Your task to perform on an android device: change notification settings in the gmail app Image 0: 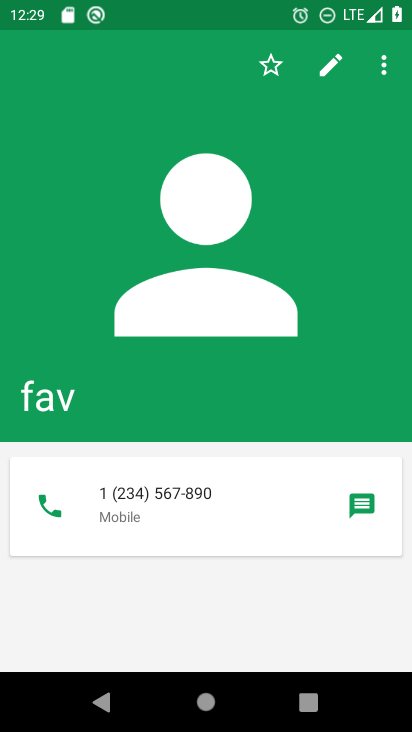
Step 0: press home button
Your task to perform on an android device: change notification settings in the gmail app Image 1: 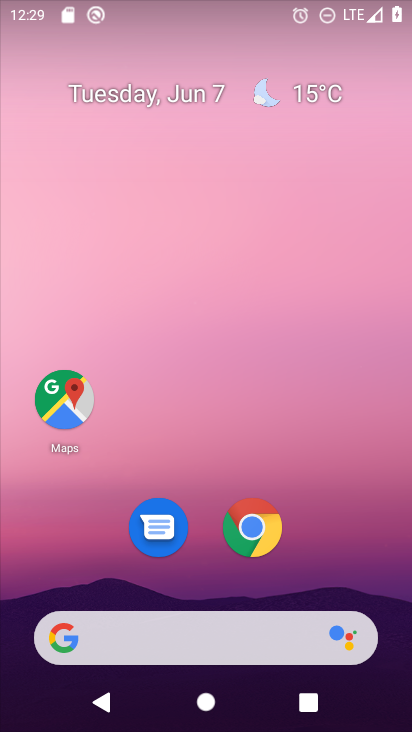
Step 1: drag from (347, 572) to (347, 95)
Your task to perform on an android device: change notification settings in the gmail app Image 2: 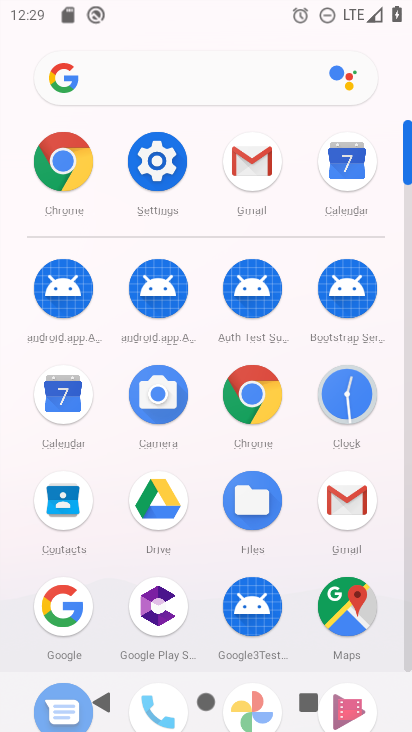
Step 2: click (353, 508)
Your task to perform on an android device: change notification settings in the gmail app Image 3: 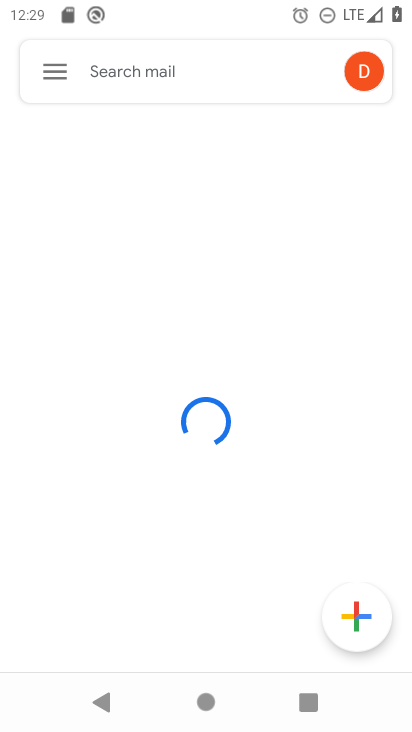
Step 3: click (53, 68)
Your task to perform on an android device: change notification settings in the gmail app Image 4: 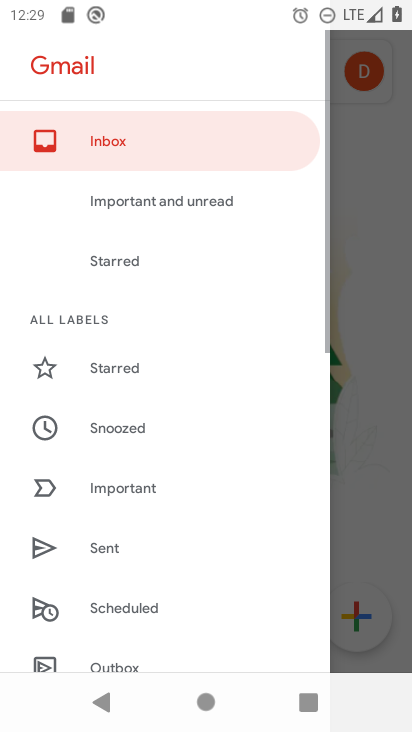
Step 4: drag from (224, 443) to (225, 289)
Your task to perform on an android device: change notification settings in the gmail app Image 5: 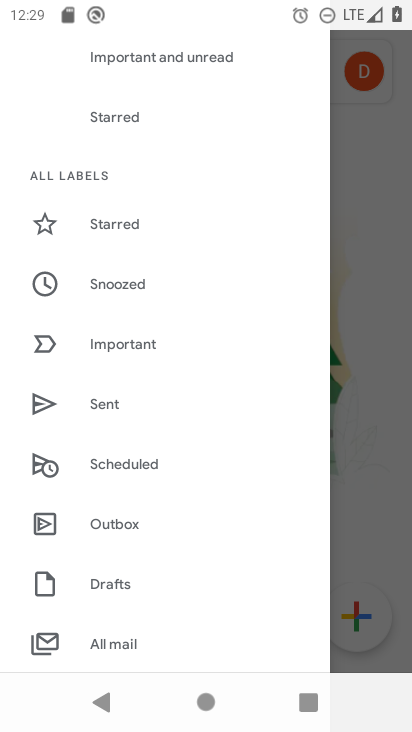
Step 5: drag from (220, 485) to (220, 334)
Your task to perform on an android device: change notification settings in the gmail app Image 6: 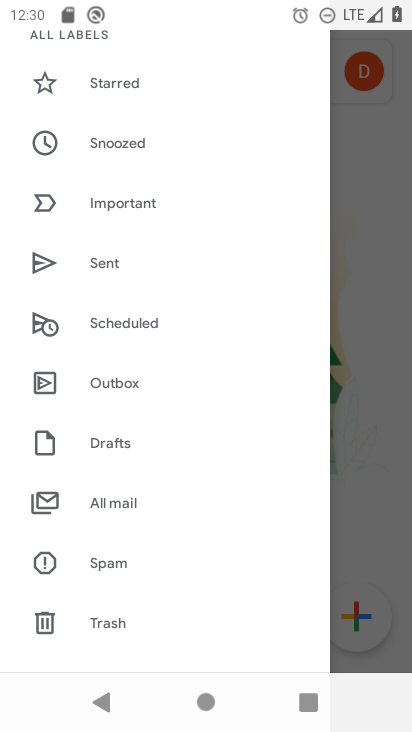
Step 6: drag from (227, 506) to (236, 370)
Your task to perform on an android device: change notification settings in the gmail app Image 7: 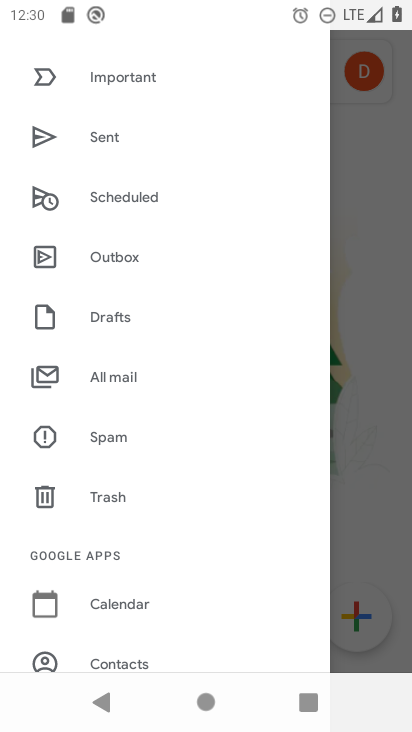
Step 7: drag from (239, 528) to (239, 361)
Your task to perform on an android device: change notification settings in the gmail app Image 8: 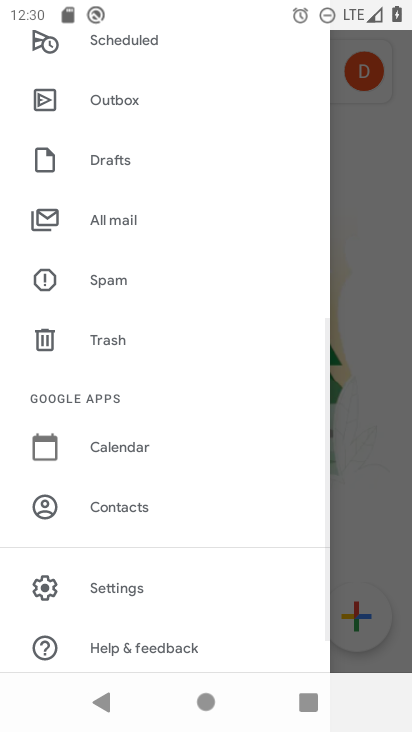
Step 8: drag from (236, 532) to (236, 357)
Your task to perform on an android device: change notification settings in the gmail app Image 9: 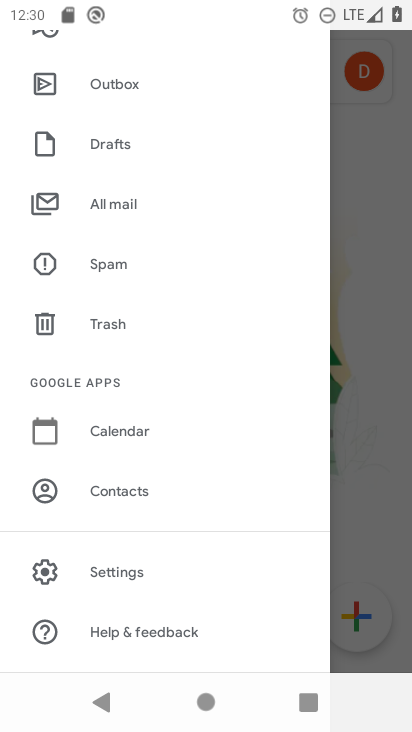
Step 9: click (153, 572)
Your task to perform on an android device: change notification settings in the gmail app Image 10: 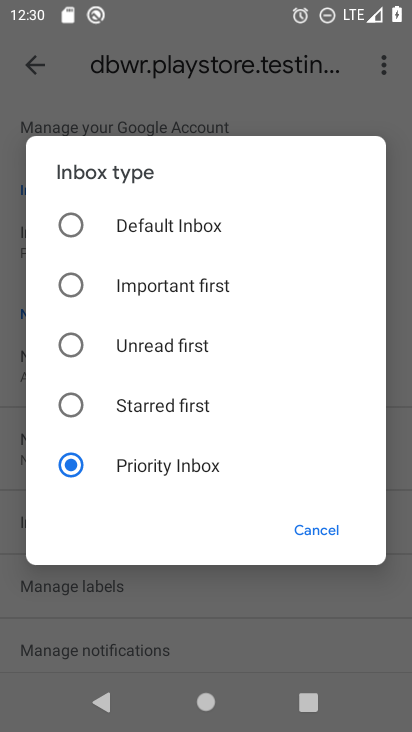
Step 10: click (297, 536)
Your task to perform on an android device: change notification settings in the gmail app Image 11: 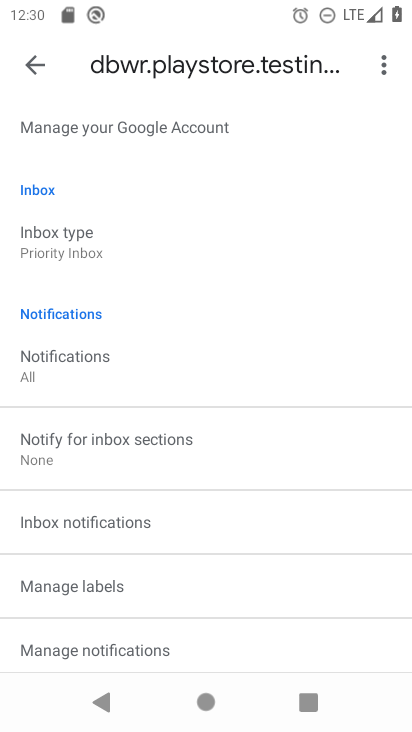
Step 11: drag from (273, 501) to (262, 334)
Your task to perform on an android device: change notification settings in the gmail app Image 12: 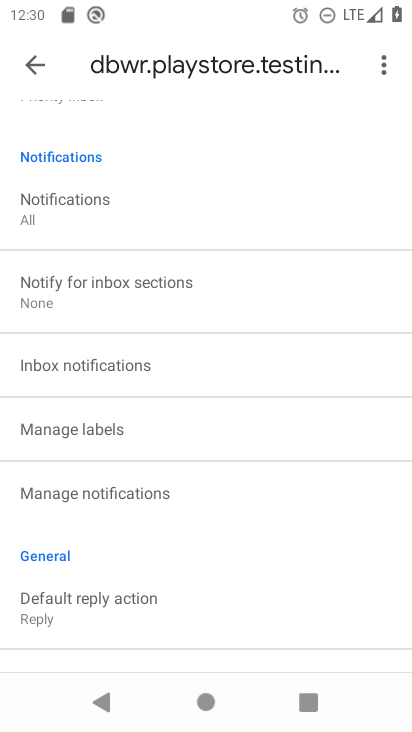
Step 12: drag from (243, 502) to (246, 348)
Your task to perform on an android device: change notification settings in the gmail app Image 13: 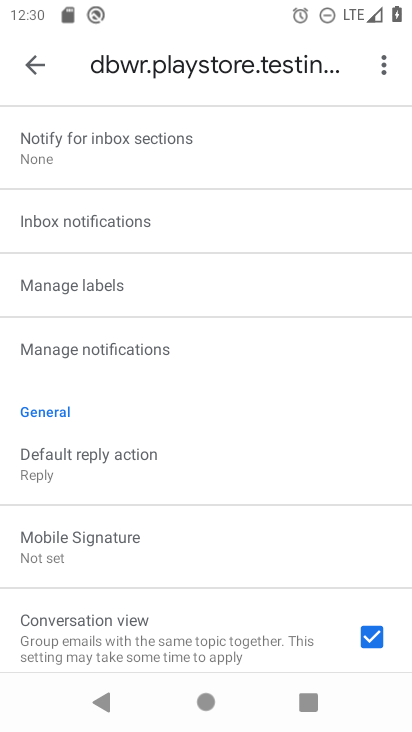
Step 13: click (188, 358)
Your task to perform on an android device: change notification settings in the gmail app Image 14: 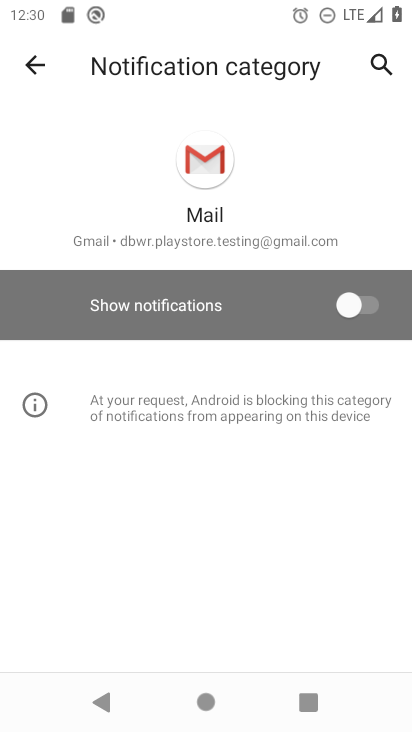
Step 14: click (347, 318)
Your task to perform on an android device: change notification settings in the gmail app Image 15: 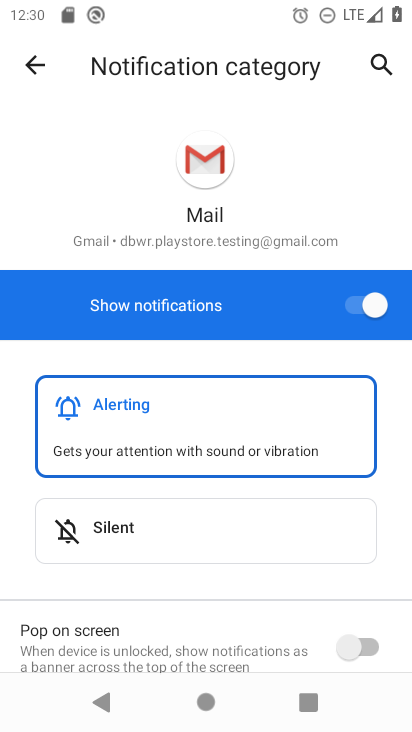
Step 15: task complete